Your task to perform on an android device: Toggle the flashlight Image 0: 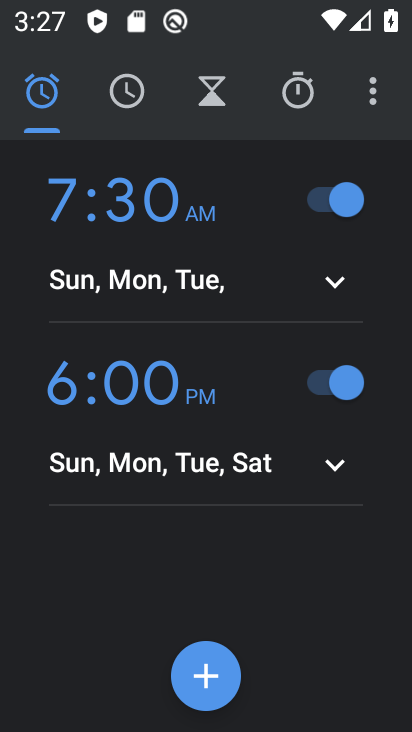
Step 0: press home button
Your task to perform on an android device: Toggle the flashlight Image 1: 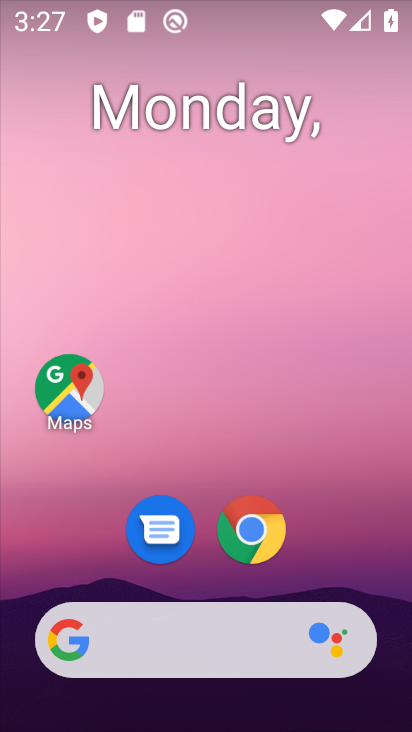
Step 1: drag from (198, 570) to (238, 11)
Your task to perform on an android device: Toggle the flashlight Image 2: 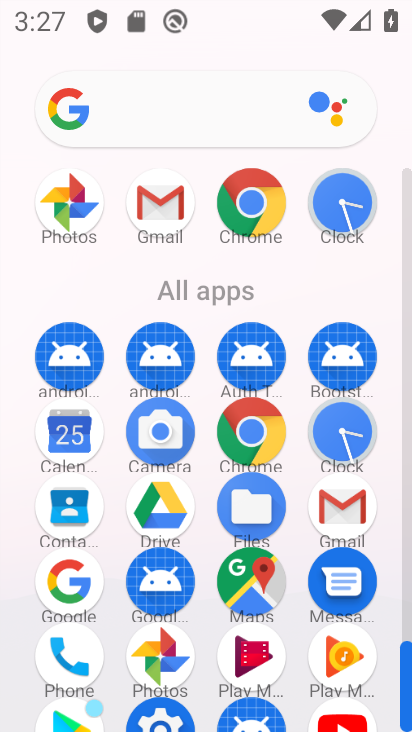
Step 2: click (259, 520)
Your task to perform on an android device: Toggle the flashlight Image 3: 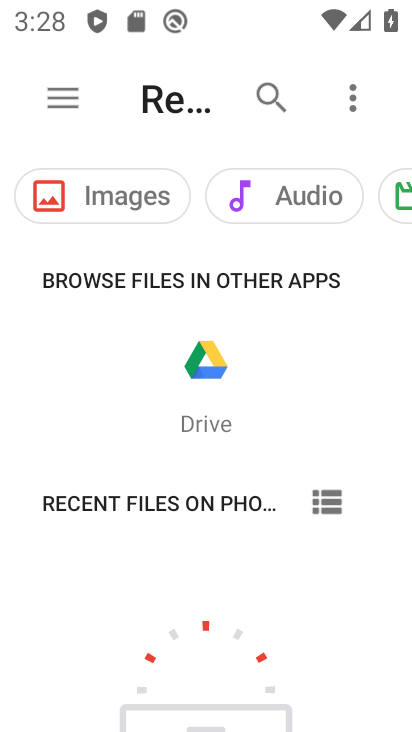
Step 3: press home button
Your task to perform on an android device: Toggle the flashlight Image 4: 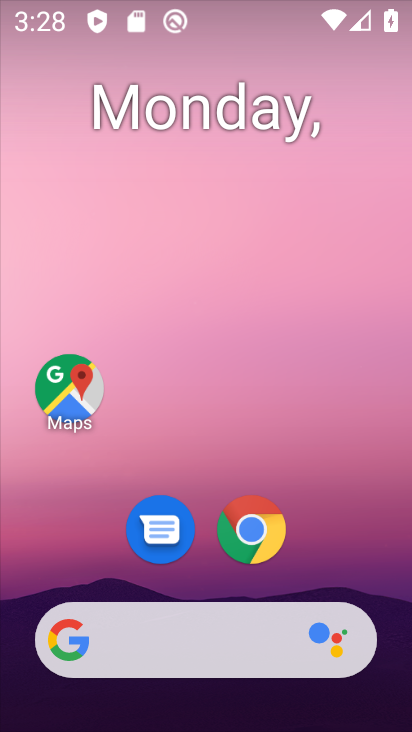
Step 4: drag from (188, 487) to (296, 4)
Your task to perform on an android device: Toggle the flashlight Image 5: 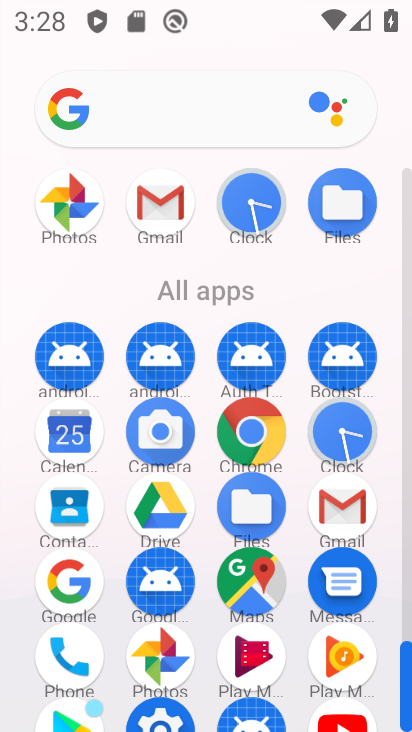
Step 5: drag from (211, 629) to (250, 4)
Your task to perform on an android device: Toggle the flashlight Image 6: 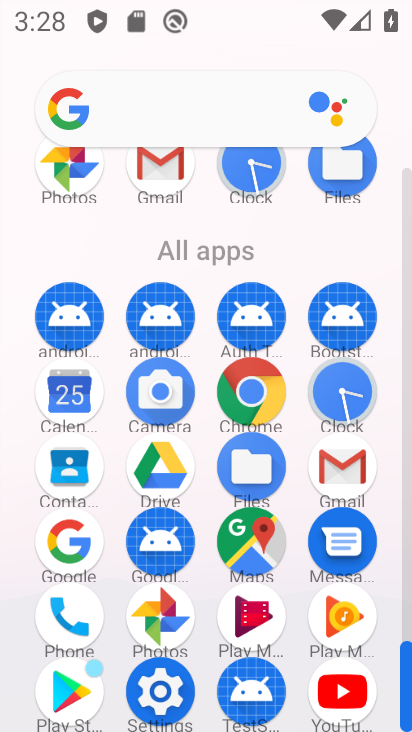
Step 6: click (174, 694)
Your task to perform on an android device: Toggle the flashlight Image 7: 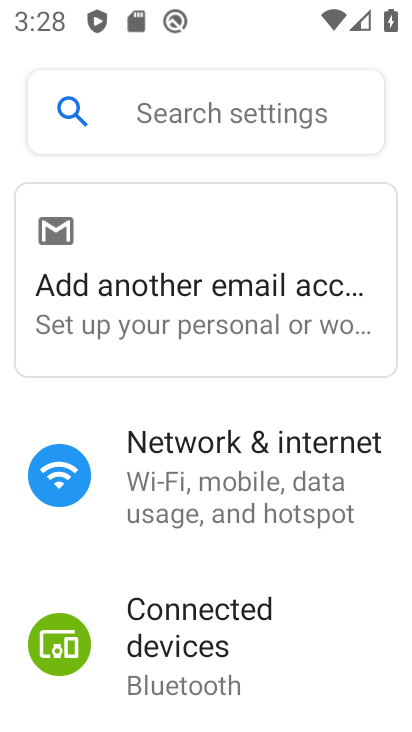
Step 7: click (212, 102)
Your task to perform on an android device: Toggle the flashlight Image 8: 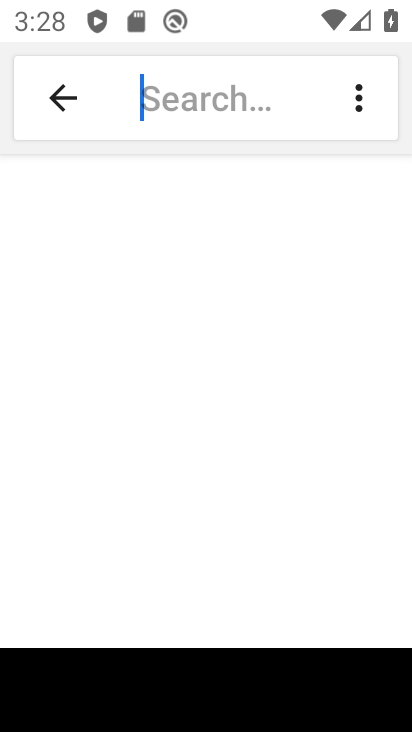
Step 8: type "flashlight"
Your task to perform on an android device: Toggle the flashlight Image 9: 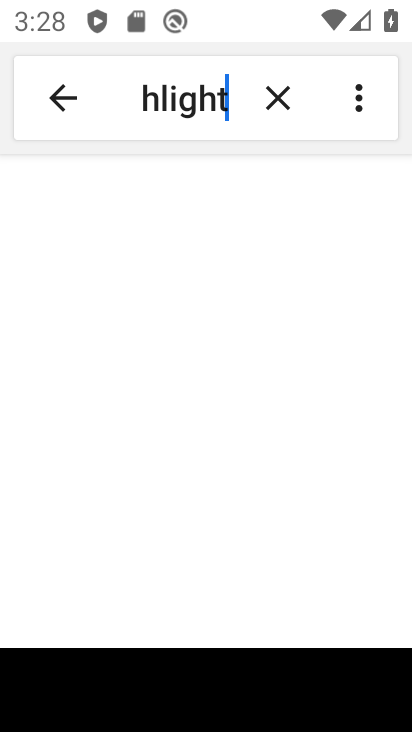
Step 9: task complete